Your task to perform on an android device: Open eBay Image 0: 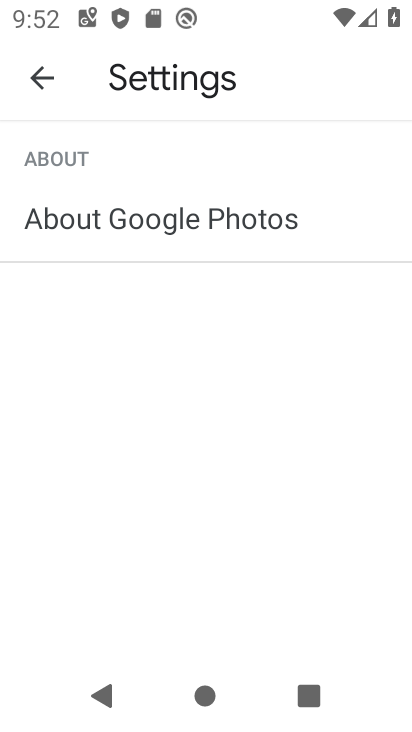
Step 0: press home button
Your task to perform on an android device: Open eBay Image 1: 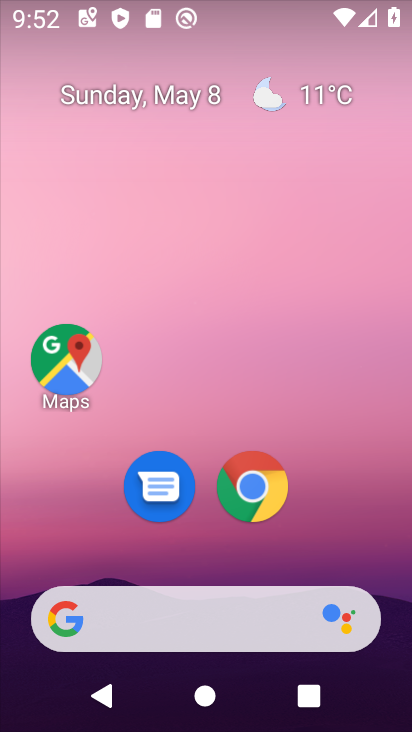
Step 1: click (266, 487)
Your task to perform on an android device: Open eBay Image 2: 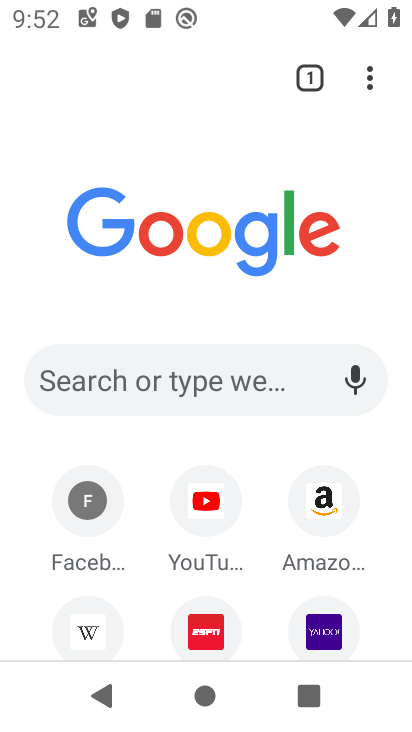
Step 2: click (196, 382)
Your task to perform on an android device: Open eBay Image 3: 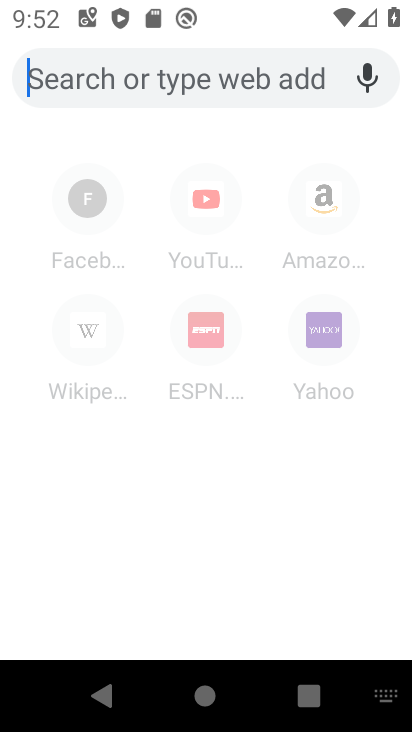
Step 3: type "ebay"
Your task to perform on an android device: Open eBay Image 4: 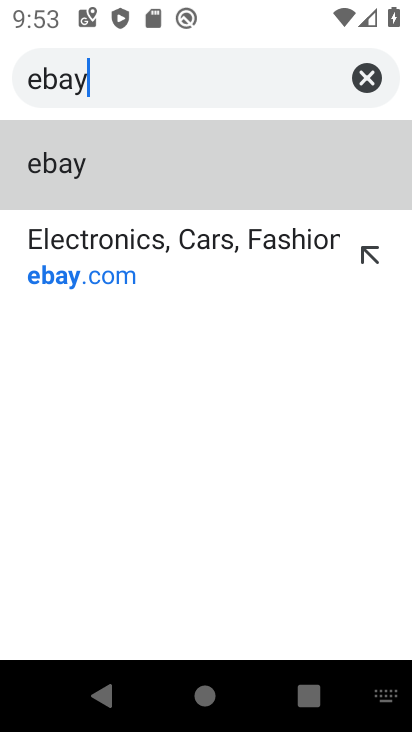
Step 4: click (203, 171)
Your task to perform on an android device: Open eBay Image 5: 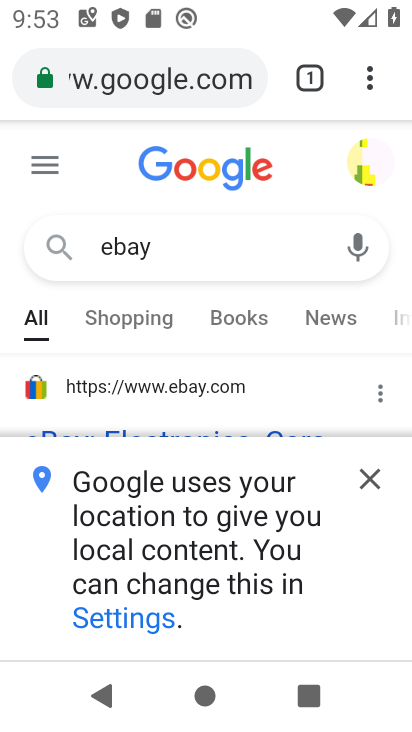
Step 5: click (373, 481)
Your task to perform on an android device: Open eBay Image 6: 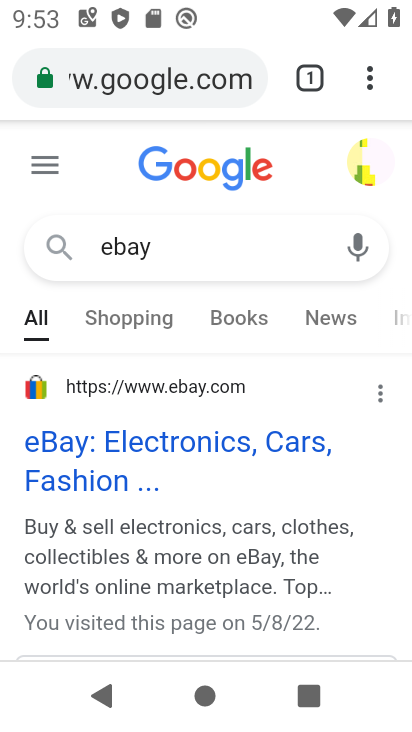
Step 6: click (224, 442)
Your task to perform on an android device: Open eBay Image 7: 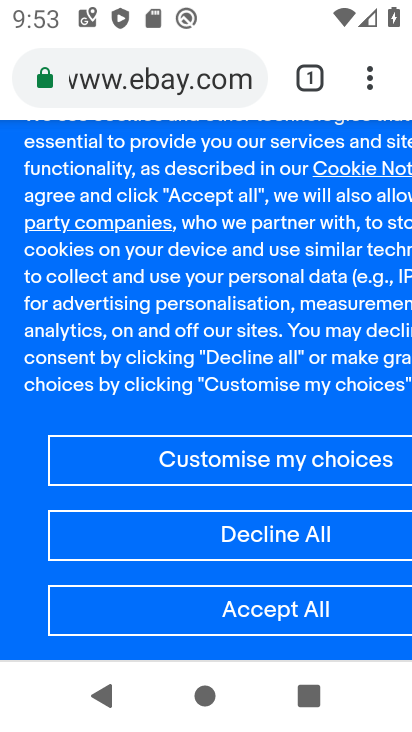
Step 7: task complete